Your task to perform on an android device: Open settings Image 0: 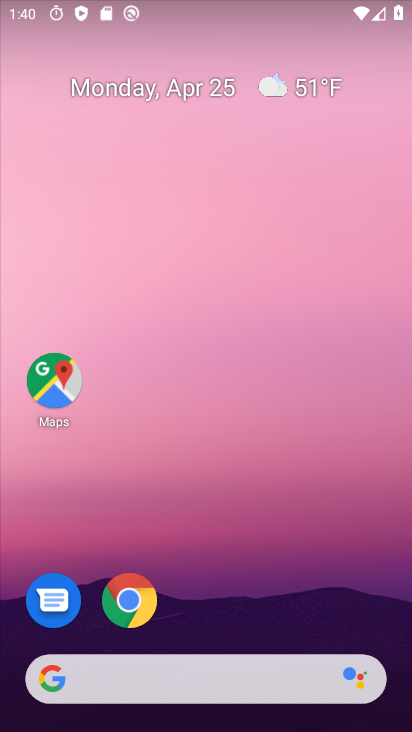
Step 0: drag from (254, 402) to (369, 41)
Your task to perform on an android device: Open settings Image 1: 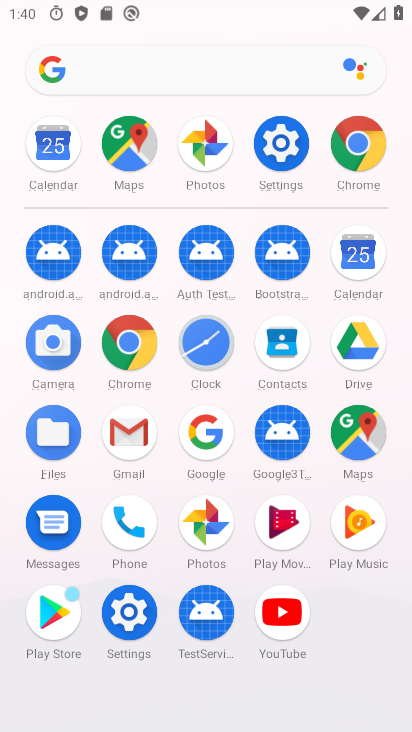
Step 1: click (275, 150)
Your task to perform on an android device: Open settings Image 2: 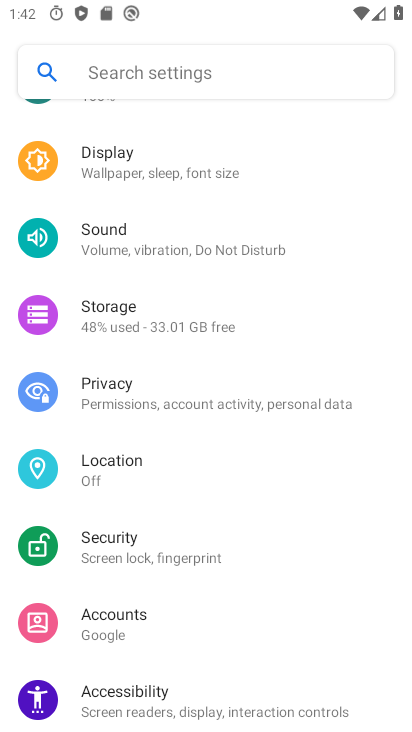
Step 2: task complete